Your task to perform on an android device: show emergency info Image 0: 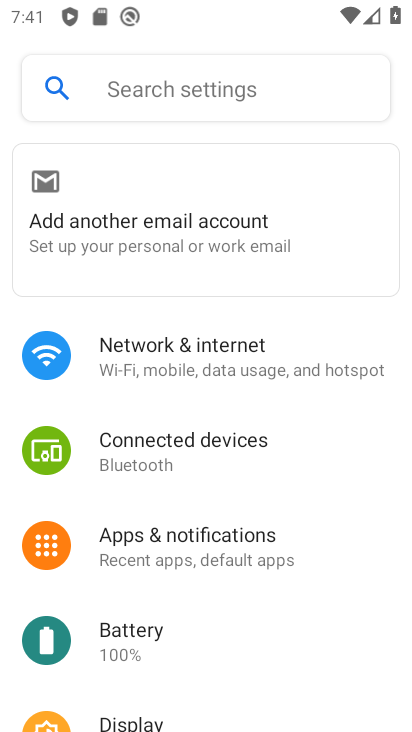
Step 0: drag from (235, 620) to (307, 241)
Your task to perform on an android device: show emergency info Image 1: 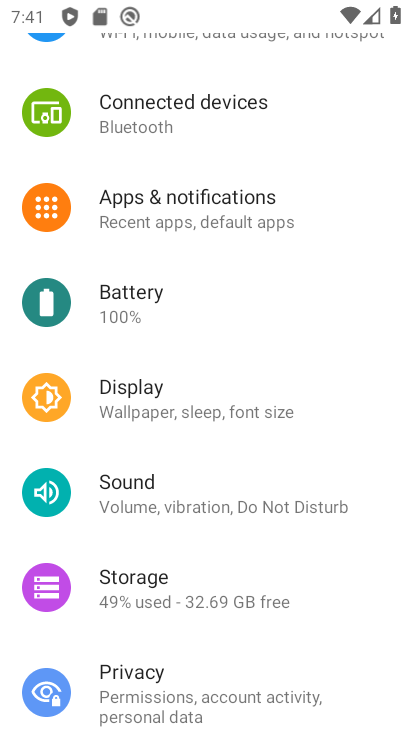
Step 1: drag from (194, 653) to (333, 60)
Your task to perform on an android device: show emergency info Image 2: 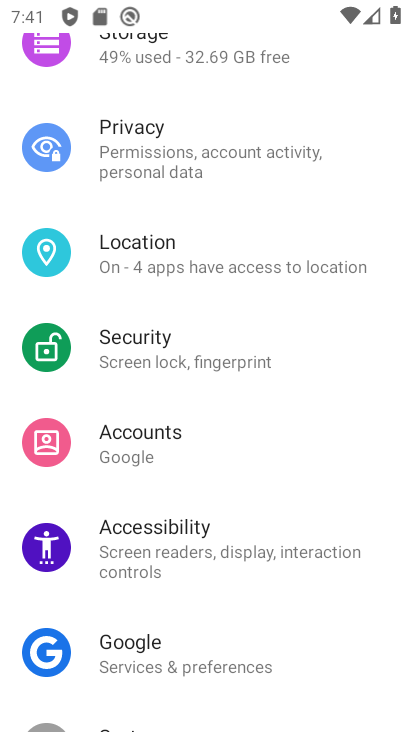
Step 2: drag from (234, 611) to (327, 10)
Your task to perform on an android device: show emergency info Image 3: 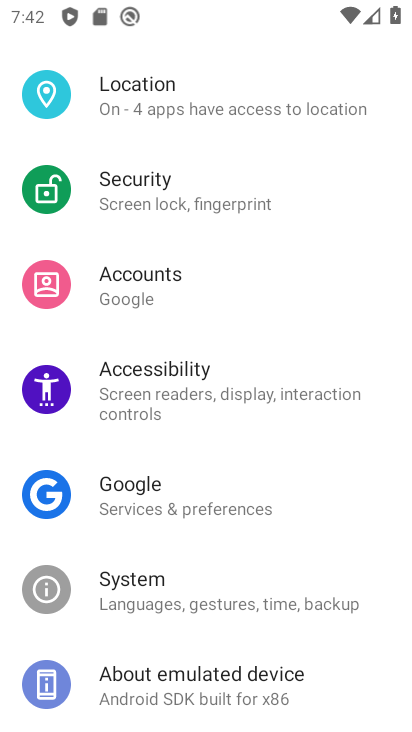
Step 3: drag from (195, 614) to (220, 419)
Your task to perform on an android device: show emergency info Image 4: 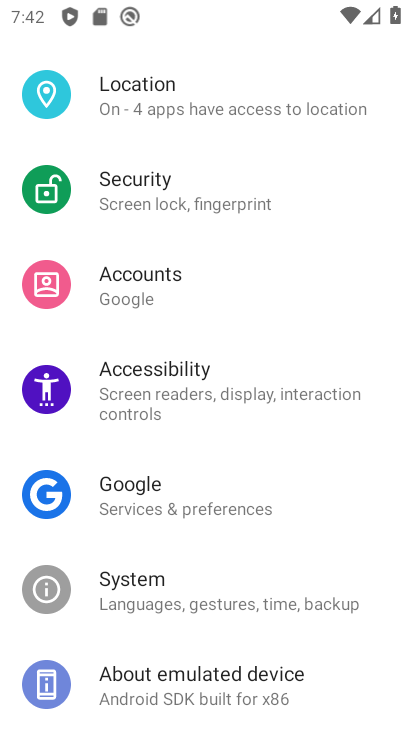
Step 4: click (209, 677)
Your task to perform on an android device: show emergency info Image 5: 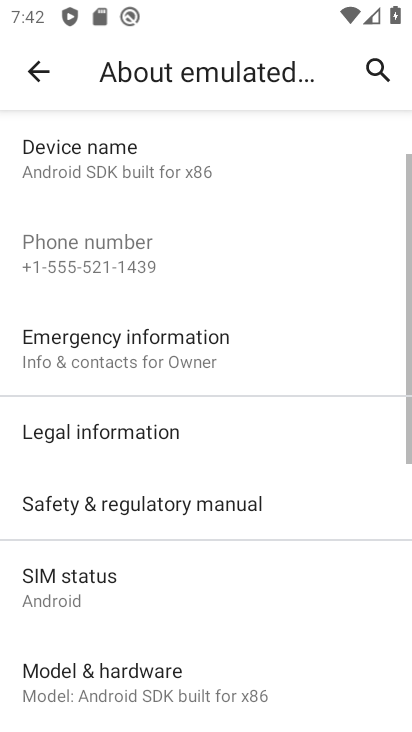
Step 5: click (154, 357)
Your task to perform on an android device: show emergency info Image 6: 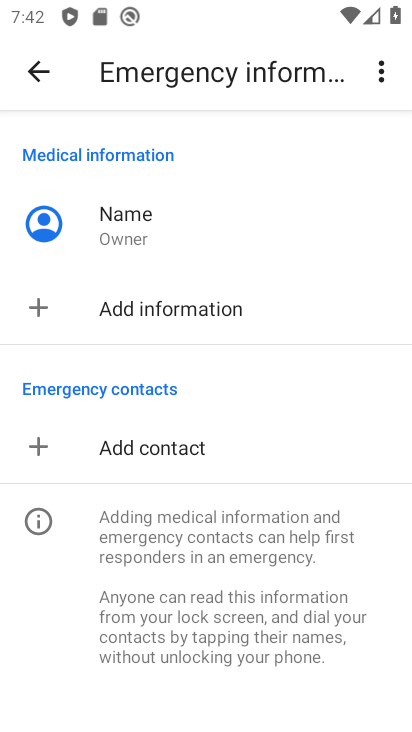
Step 6: task complete